Your task to perform on an android device: When is my next appointment? Image 0: 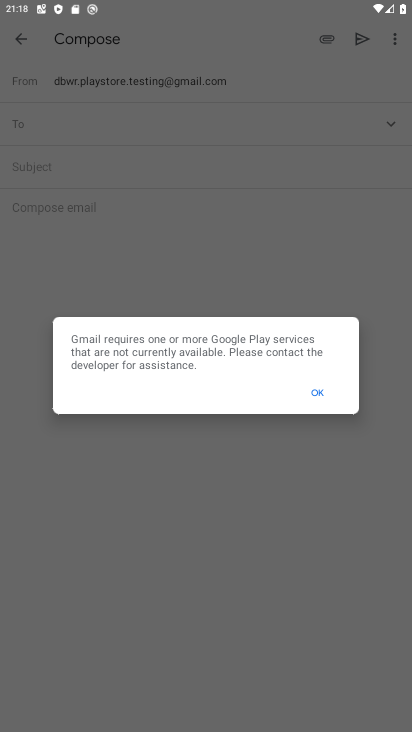
Step 0: press back button
Your task to perform on an android device: When is my next appointment? Image 1: 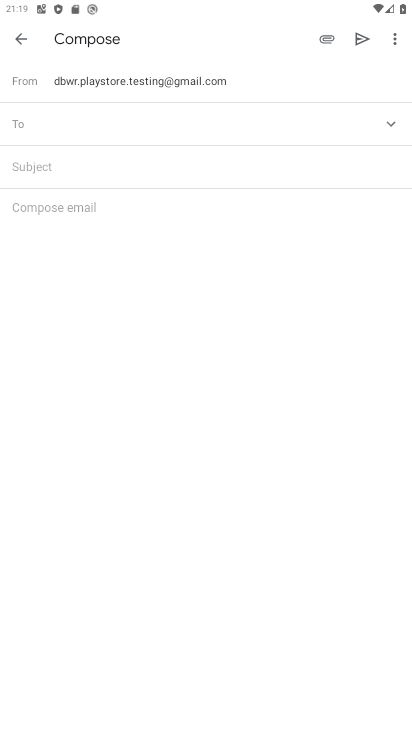
Step 1: press back button
Your task to perform on an android device: When is my next appointment? Image 2: 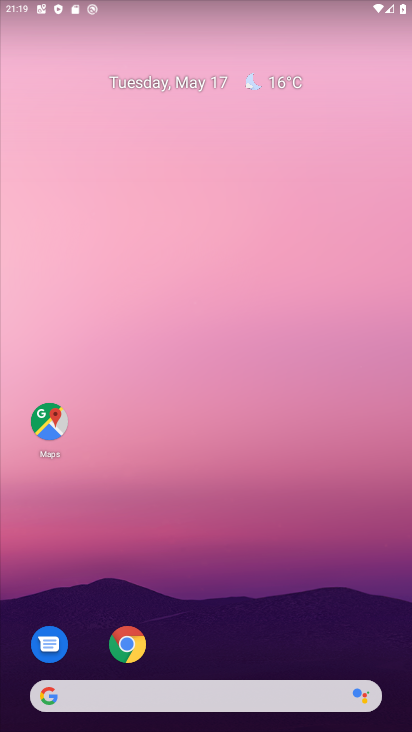
Step 2: drag from (232, 571) to (302, 43)
Your task to perform on an android device: When is my next appointment? Image 3: 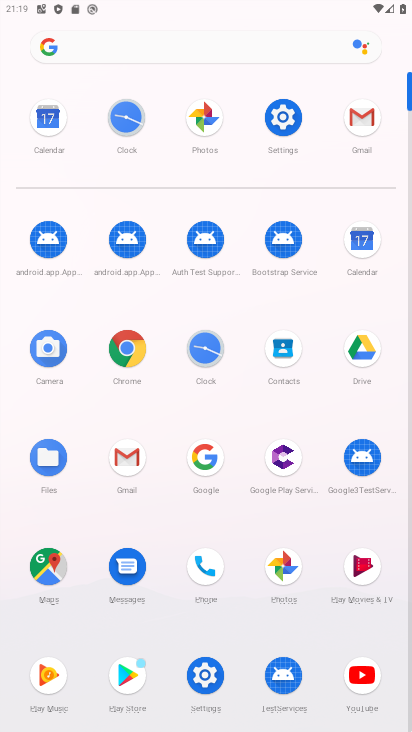
Step 3: click (354, 244)
Your task to perform on an android device: When is my next appointment? Image 4: 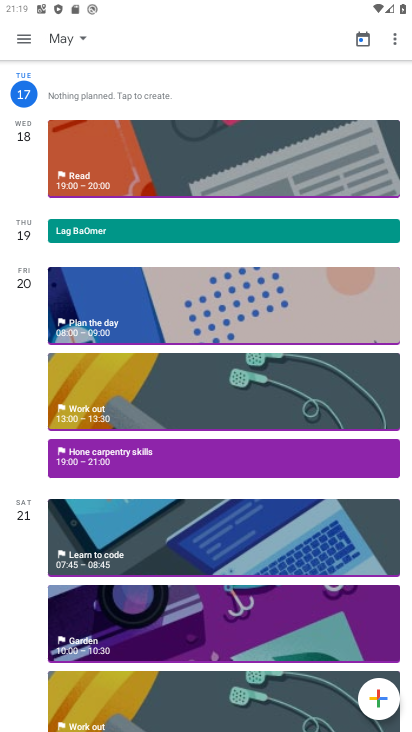
Step 4: task complete